Your task to perform on an android device: Do I have any events this weekend? Image 0: 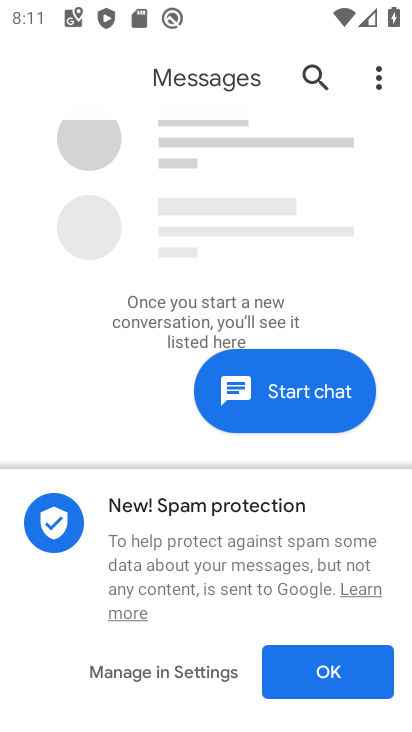
Step 0: press home button
Your task to perform on an android device: Do I have any events this weekend? Image 1: 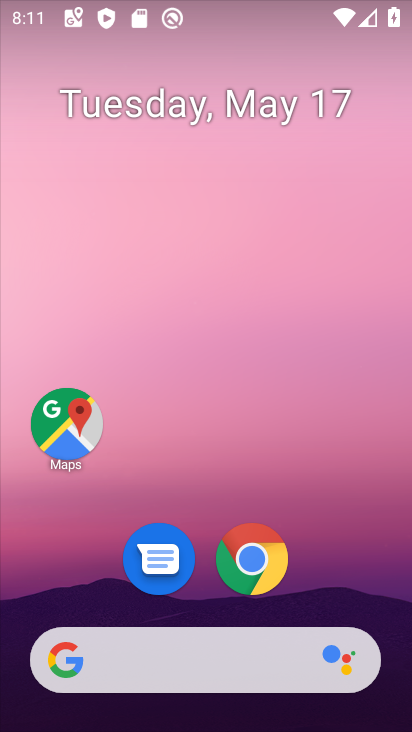
Step 1: drag from (180, 687) to (219, 58)
Your task to perform on an android device: Do I have any events this weekend? Image 2: 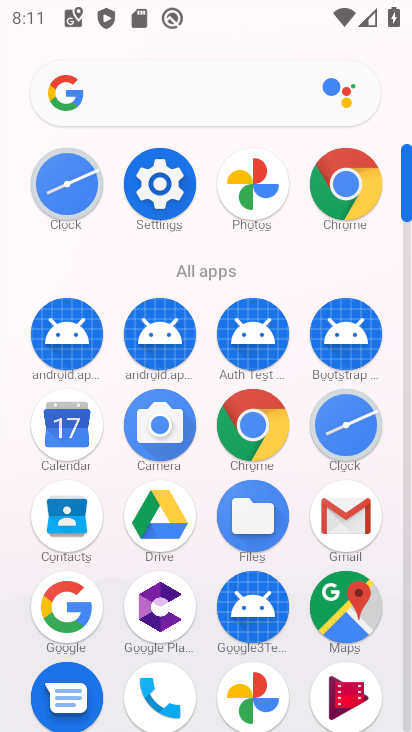
Step 2: click (67, 436)
Your task to perform on an android device: Do I have any events this weekend? Image 3: 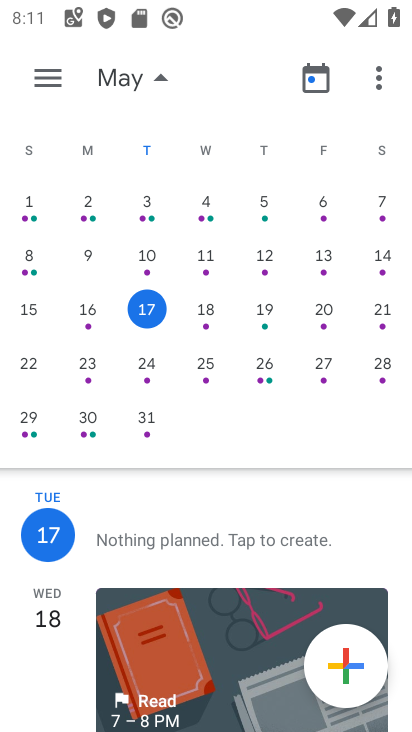
Step 3: drag from (63, 253) to (405, 344)
Your task to perform on an android device: Do I have any events this weekend? Image 4: 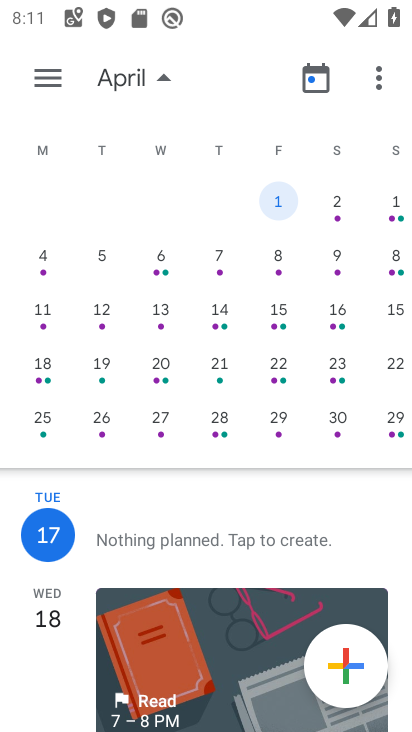
Step 4: drag from (257, 291) to (28, 369)
Your task to perform on an android device: Do I have any events this weekend? Image 5: 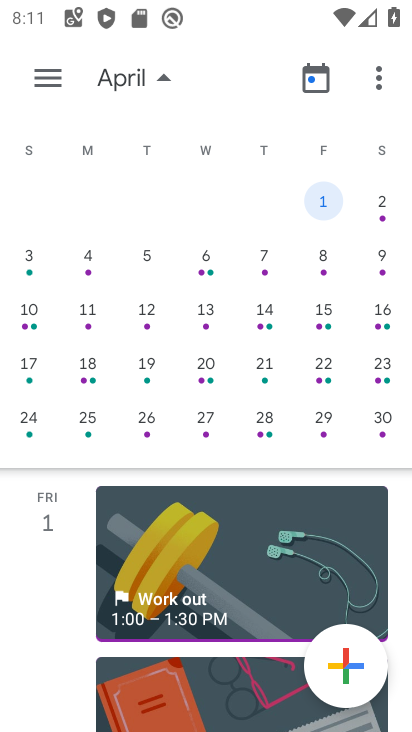
Step 5: drag from (372, 279) to (0, 348)
Your task to perform on an android device: Do I have any events this weekend? Image 6: 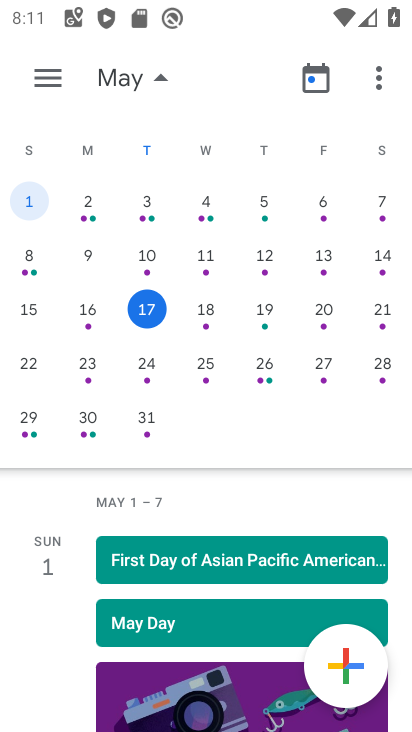
Step 6: click (379, 307)
Your task to perform on an android device: Do I have any events this weekend? Image 7: 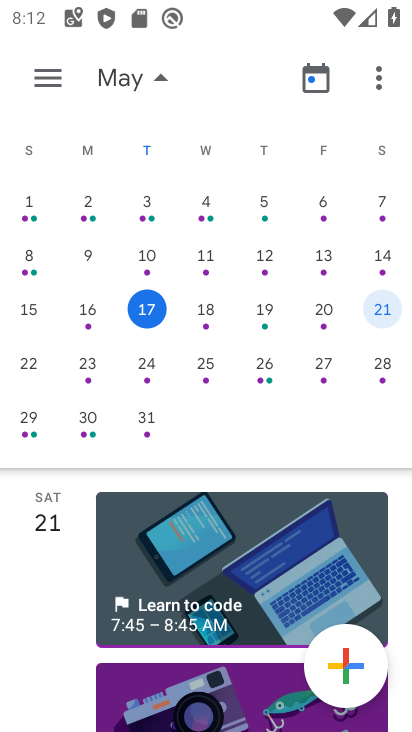
Step 7: task complete